Your task to perform on an android device: allow cookies in the chrome app Image 0: 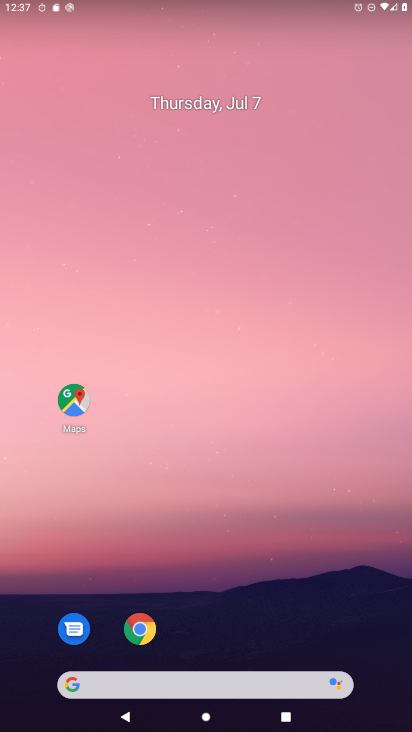
Step 0: click (147, 637)
Your task to perform on an android device: allow cookies in the chrome app Image 1: 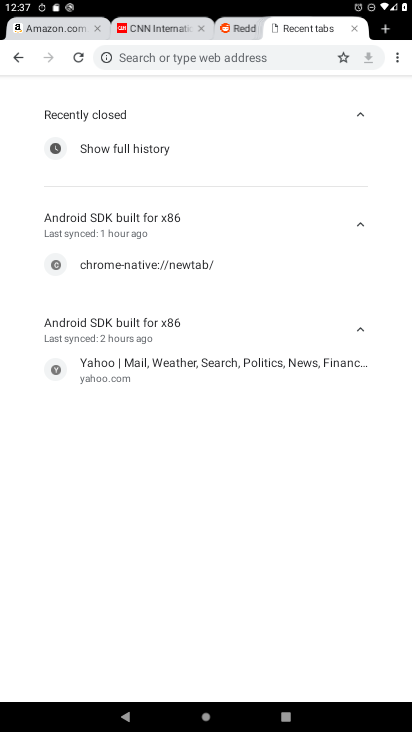
Step 1: click (396, 55)
Your task to perform on an android device: allow cookies in the chrome app Image 2: 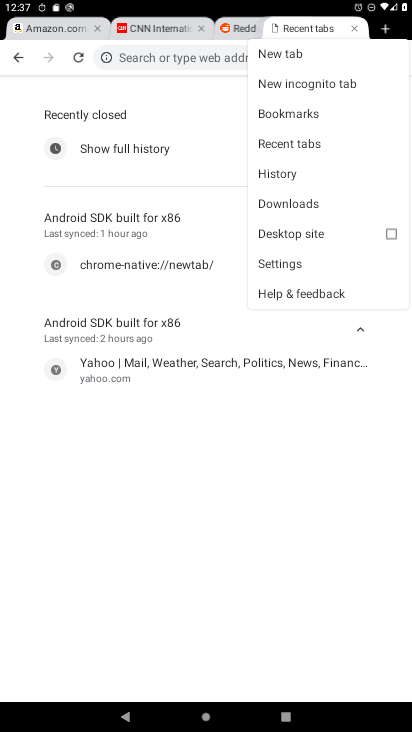
Step 2: click (289, 261)
Your task to perform on an android device: allow cookies in the chrome app Image 3: 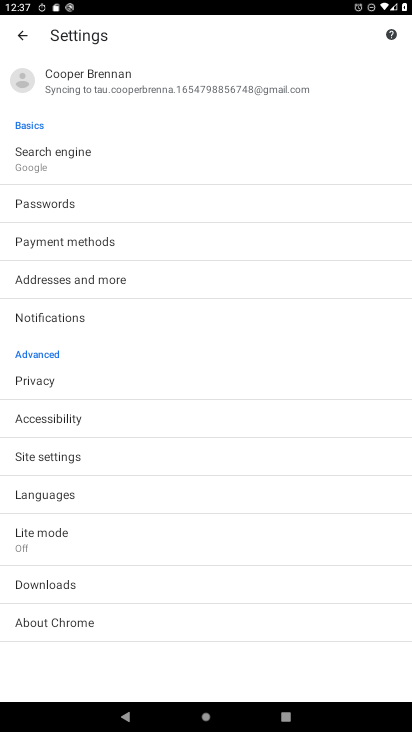
Step 3: click (113, 456)
Your task to perform on an android device: allow cookies in the chrome app Image 4: 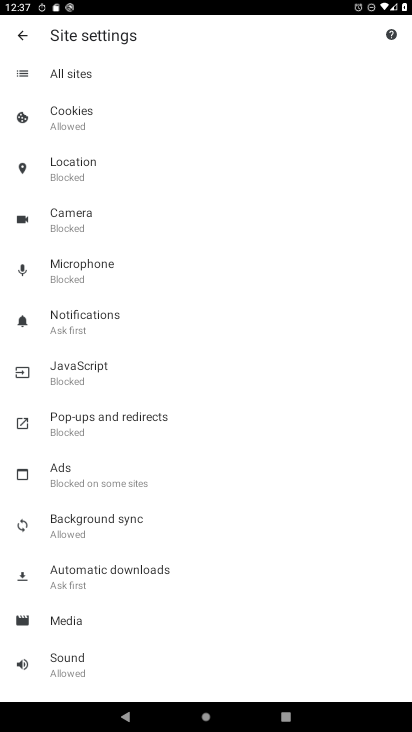
Step 4: click (124, 115)
Your task to perform on an android device: allow cookies in the chrome app Image 5: 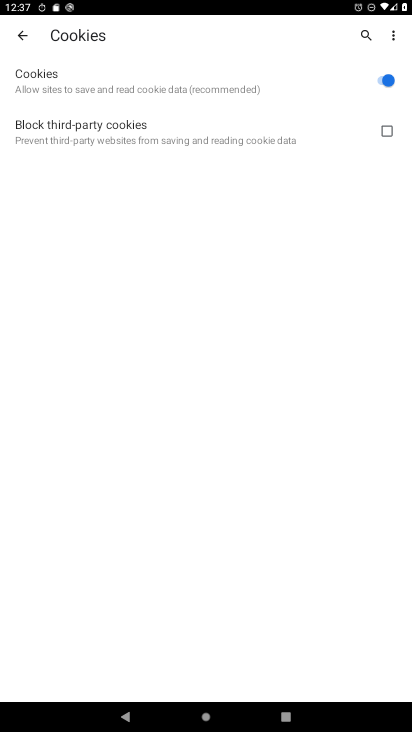
Step 5: task complete